Your task to perform on an android device: visit the assistant section in the google photos Image 0: 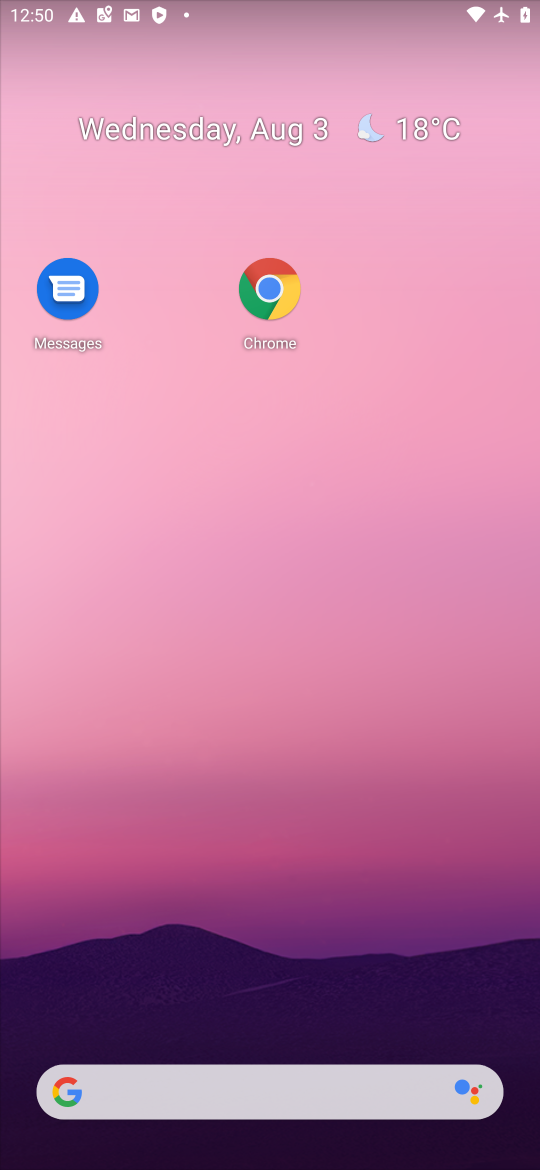
Step 0: drag from (394, 1017) to (437, 3)
Your task to perform on an android device: visit the assistant section in the google photos Image 1: 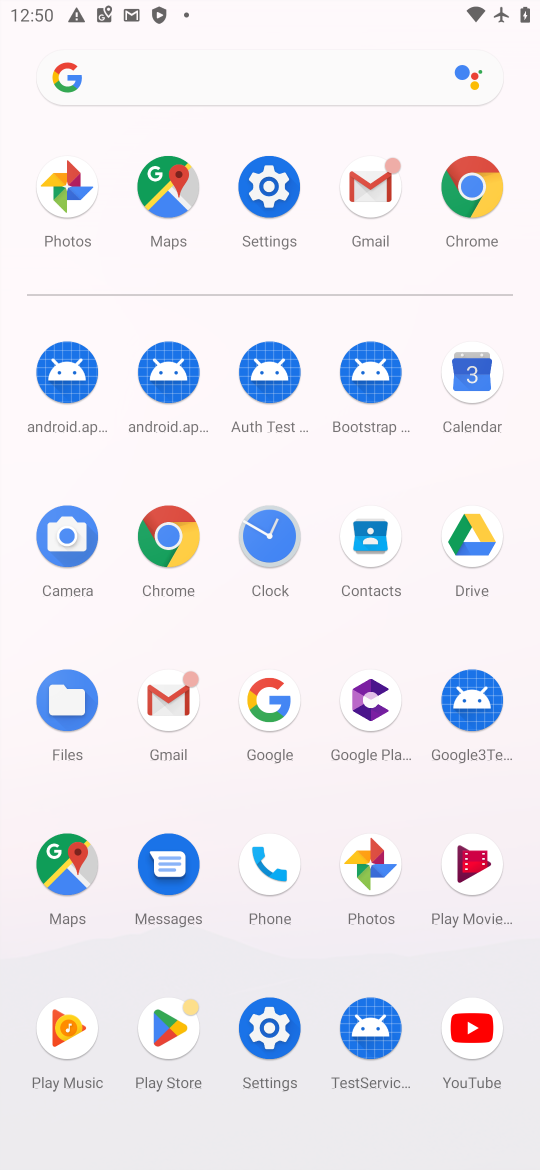
Step 1: click (372, 843)
Your task to perform on an android device: visit the assistant section in the google photos Image 2: 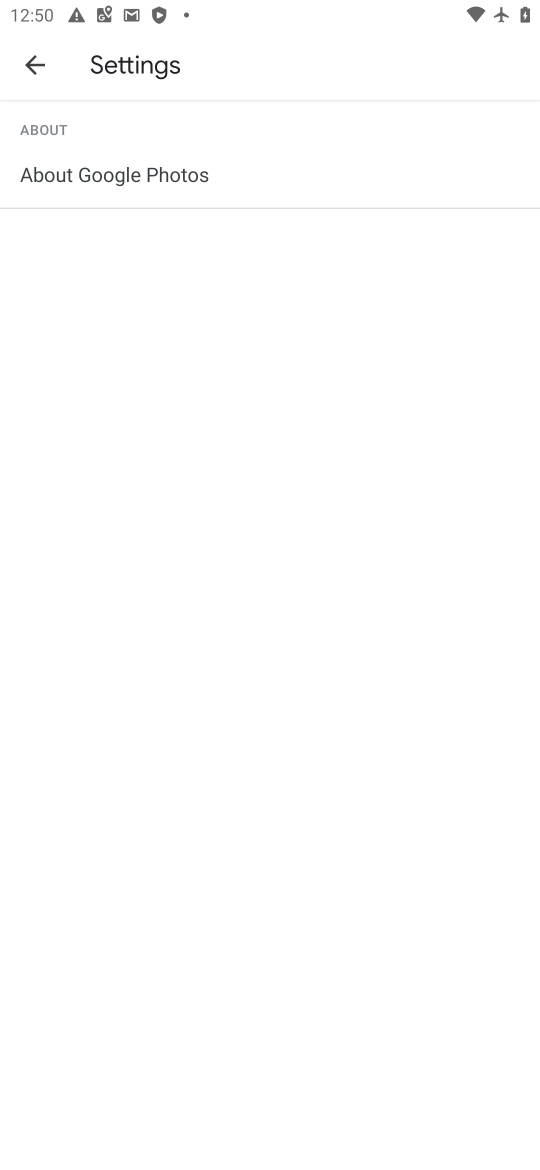
Step 2: task complete